Your task to perform on an android device: Open settings Image 0: 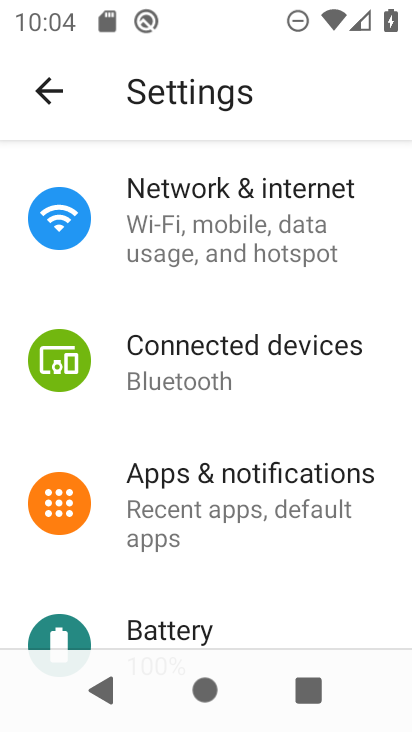
Step 0: drag from (208, 481) to (398, 10)
Your task to perform on an android device: Open settings Image 1: 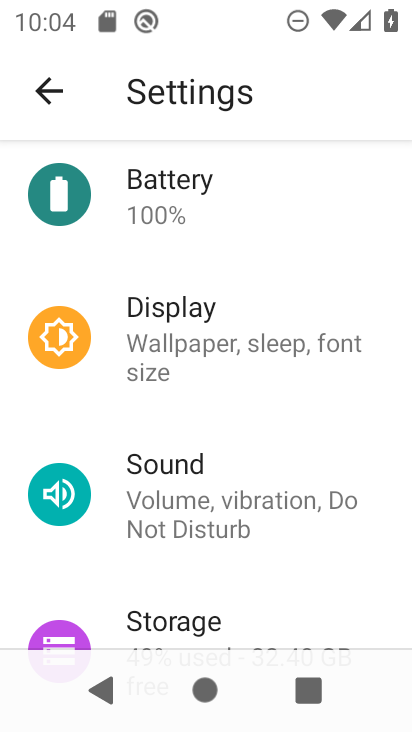
Step 1: task complete